Your task to perform on an android device: turn notification dots off Image 0: 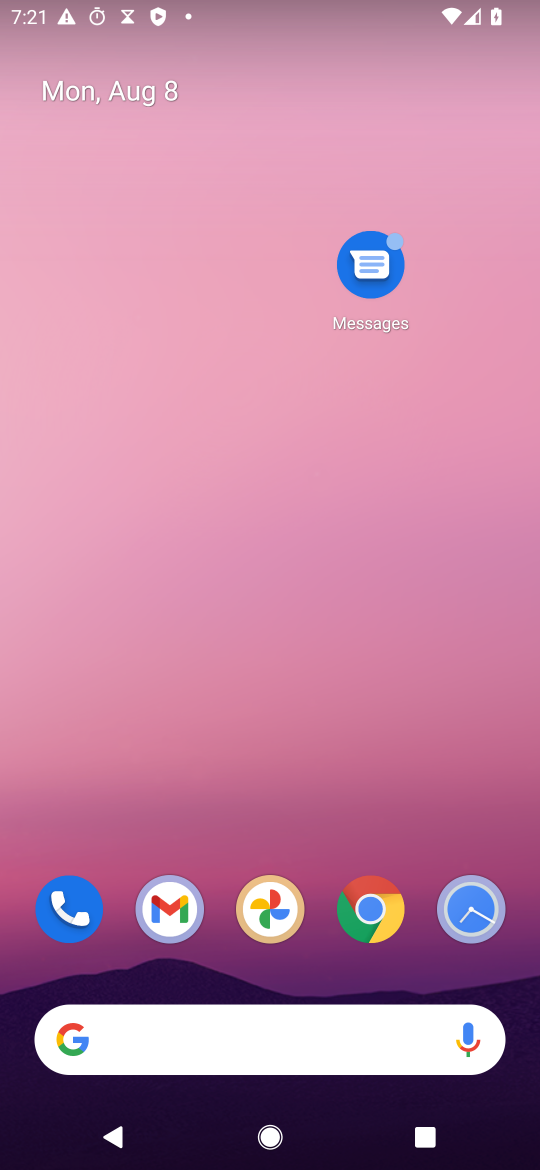
Step 0: drag from (185, 1049) to (310, 102)
Your task to perform on an android device: turn notification dots off Image 1: 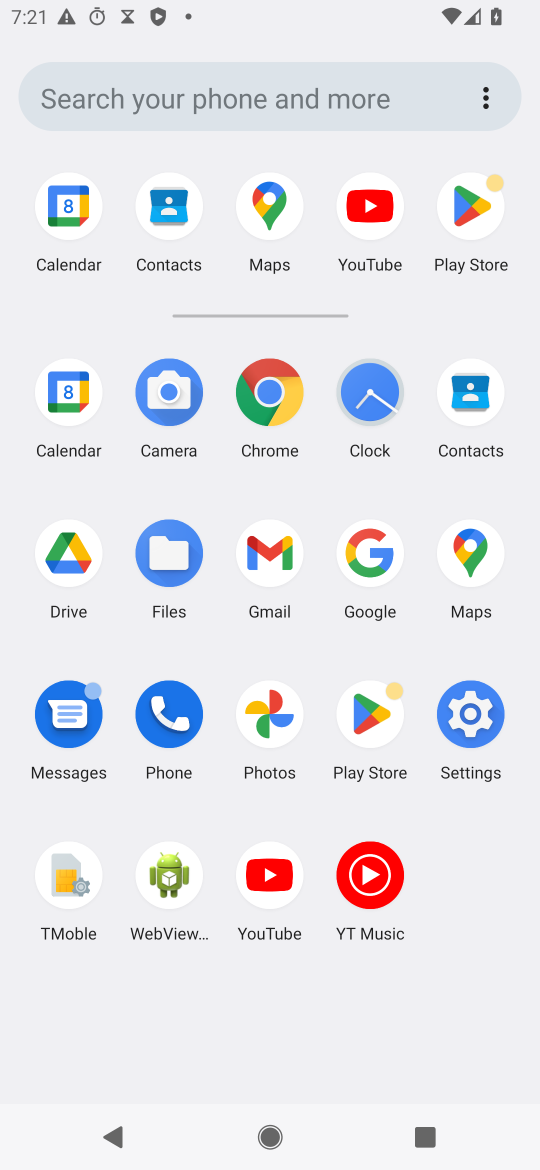
Step 1: click (476, 709)
Your task to perform on an android device: turn notification dots off Image 2: 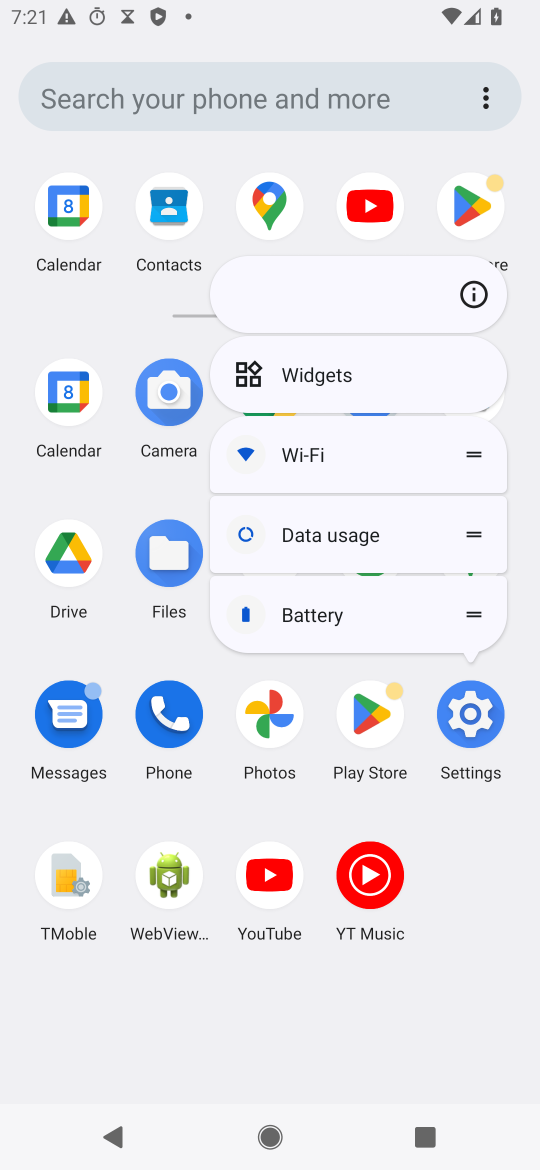
Step 2: click (472, 712)
Your task to perform on an android device: turn notification dots off Image 3: 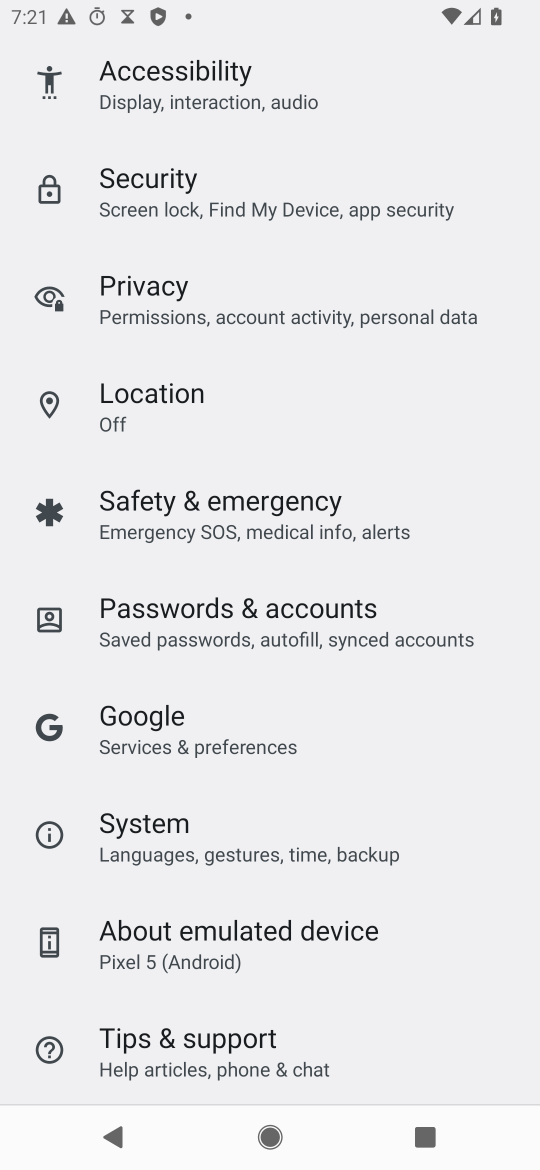
Step 3: drag from (450, 151) to (353, 902)
Your task to perform on an android device: turn notification dots off Image 4: 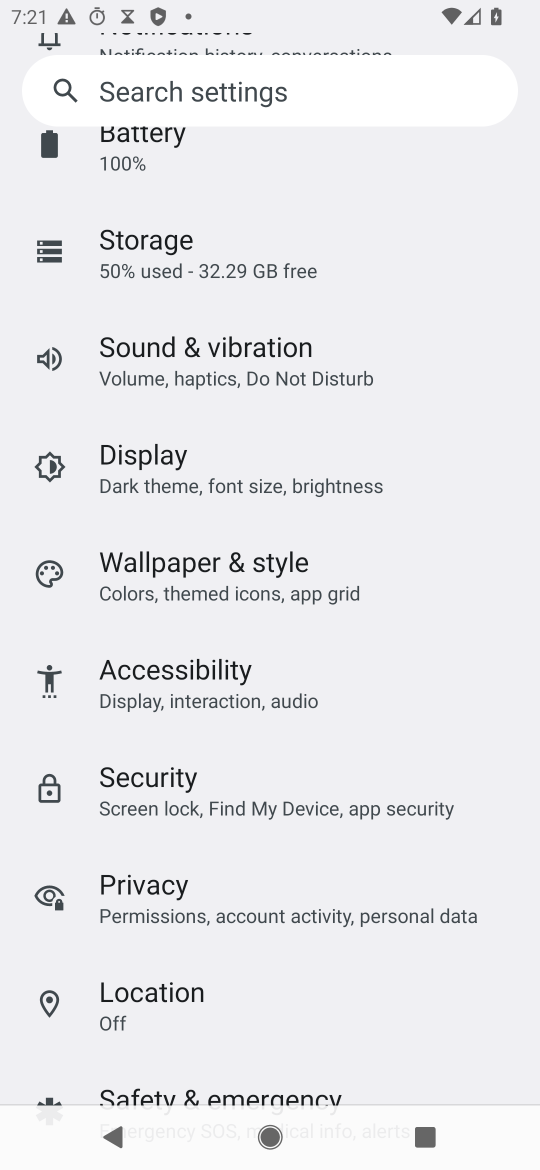
Step 4: drag from (379, 227) to (375, 1019)
Your task to perform on an android device: turn notification dots off Image 5: 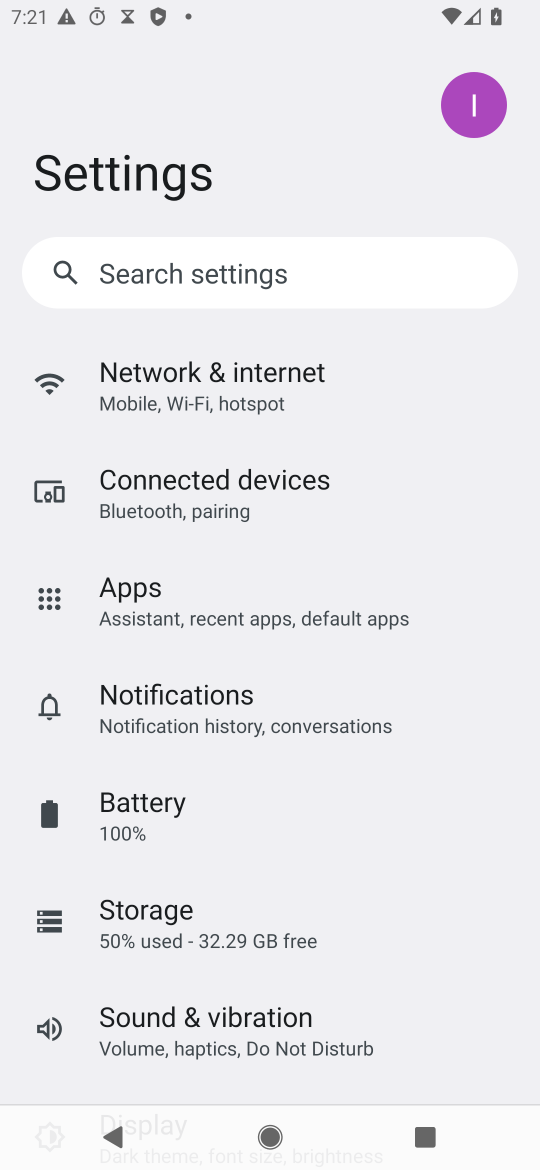
Step 5: click (208, 698)
Your task to perform on an android device: turn notification dots off Image 6: 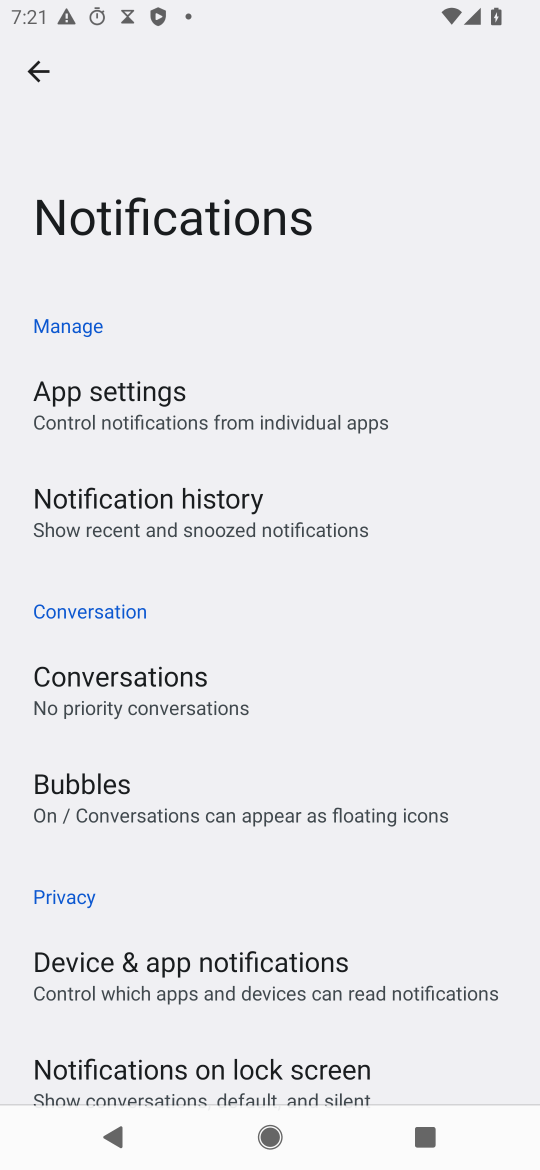
Step 6: drag from (346, 893) to (423, 311)
Your task to perform on an android device: turn notification dots off Image 7: 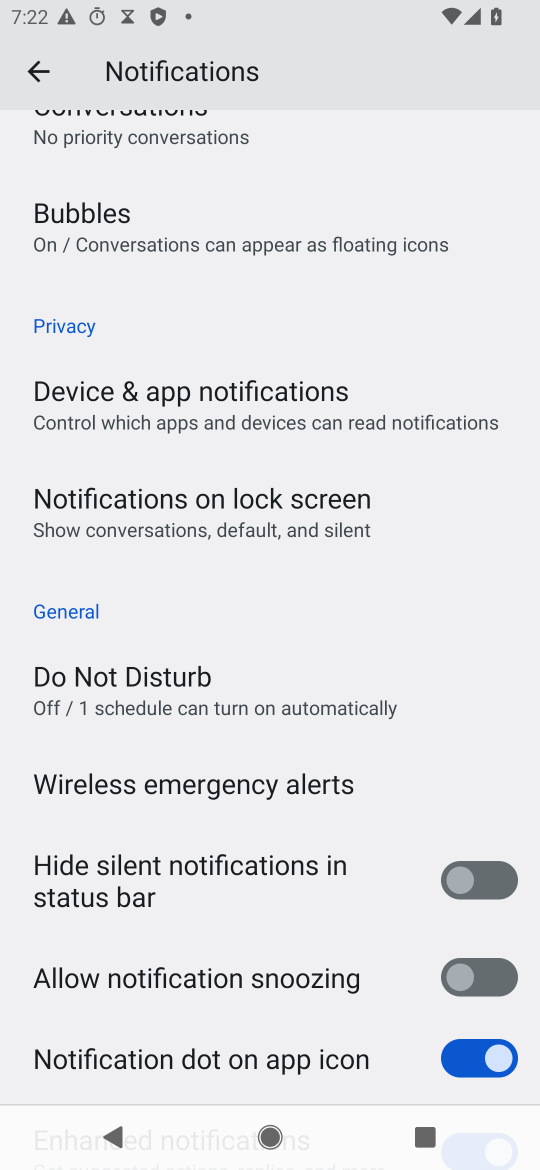
Step 7: drag from (203, 1009) to (236, 261)
Your task to perform on an android device: turn notification dots off Image 8: 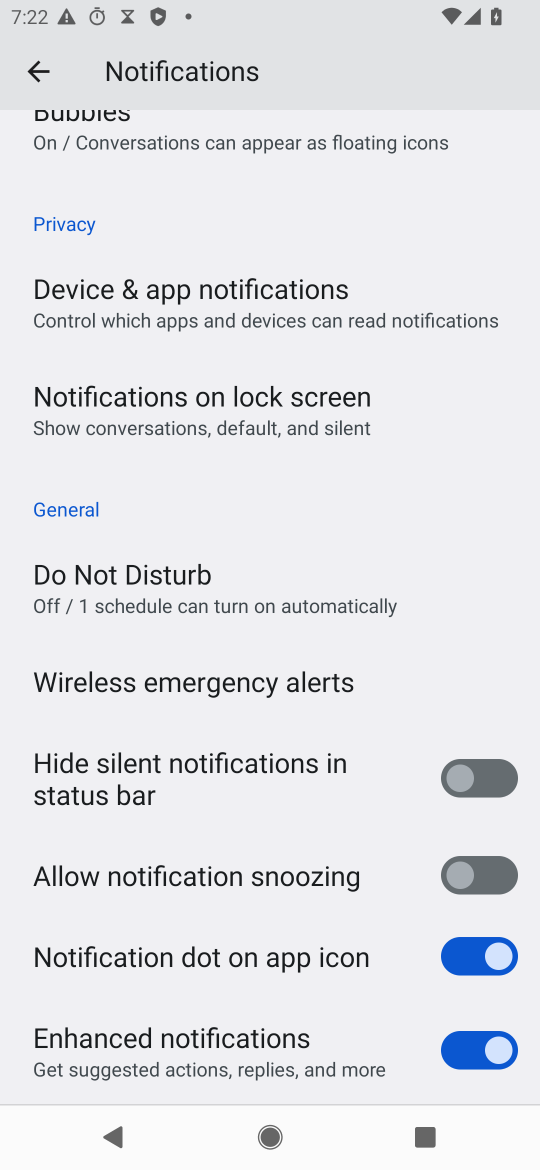
Step 8: click (464, 959)
Your task to perform on an android device: turn notification dots off Image 9: 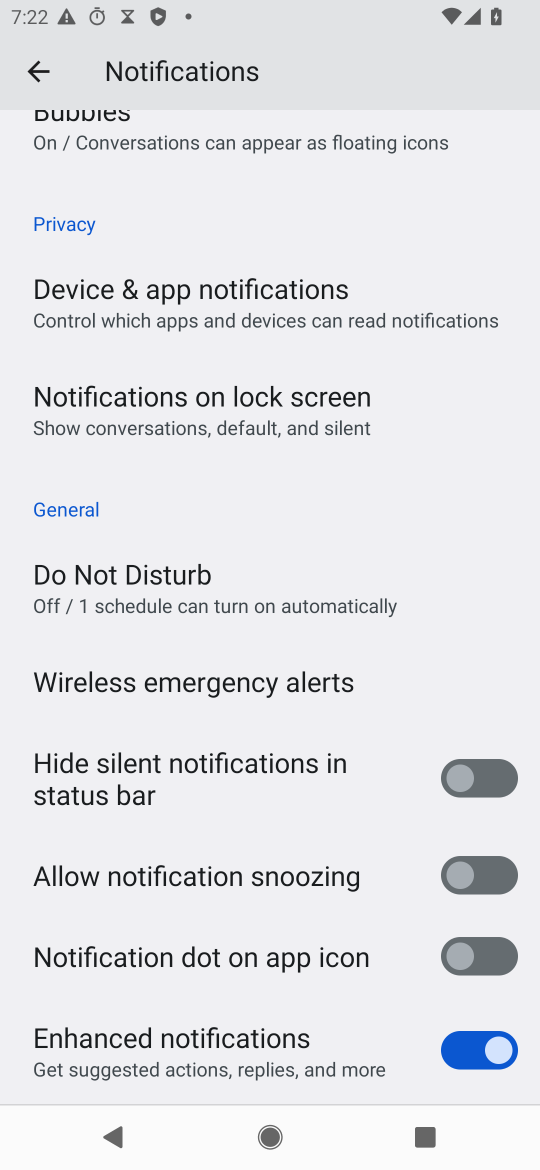
Step 9: task complete